Your task to perform on an android device: Open the calculator Image 0: 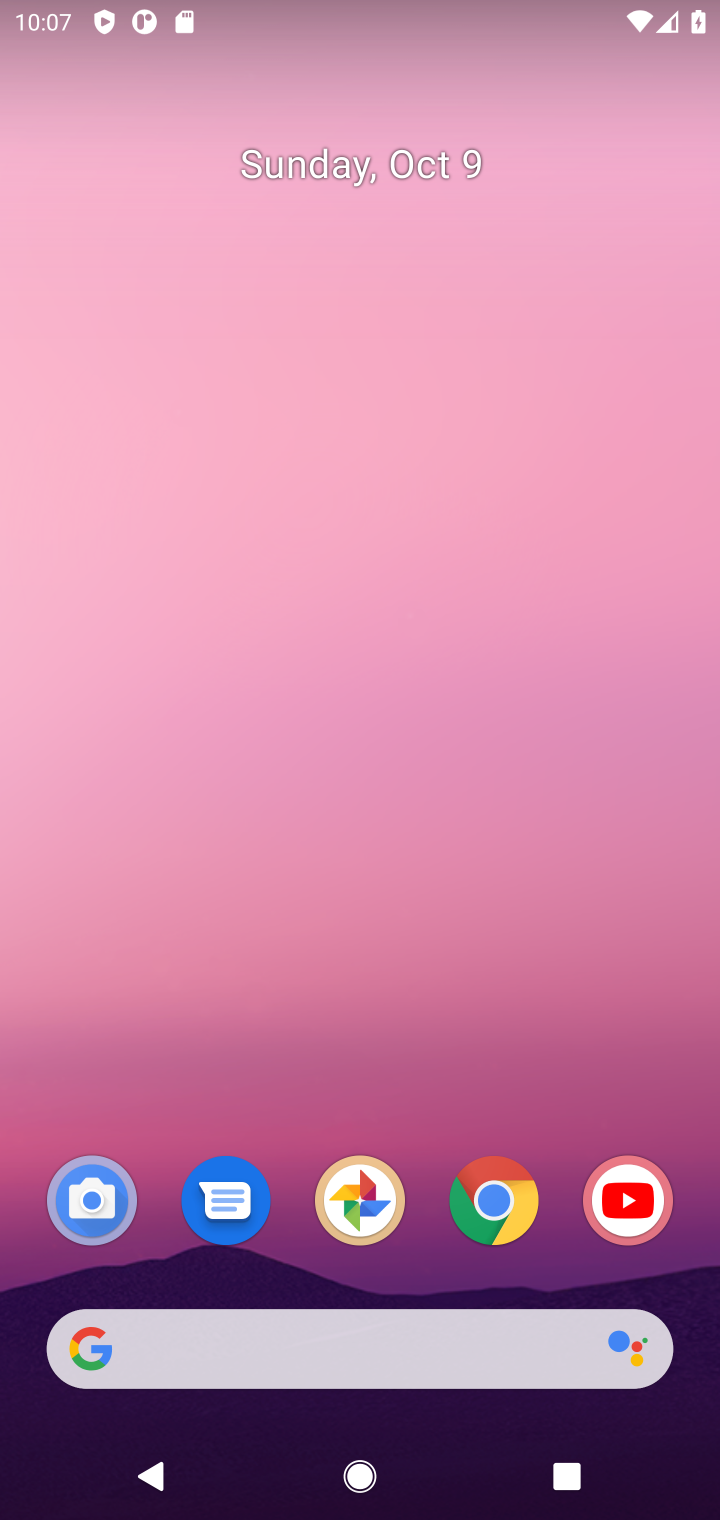
Step 0: drag from (408, 981) to (399, 86)
Your task to perform on an android device: Open the calculator Image 1: 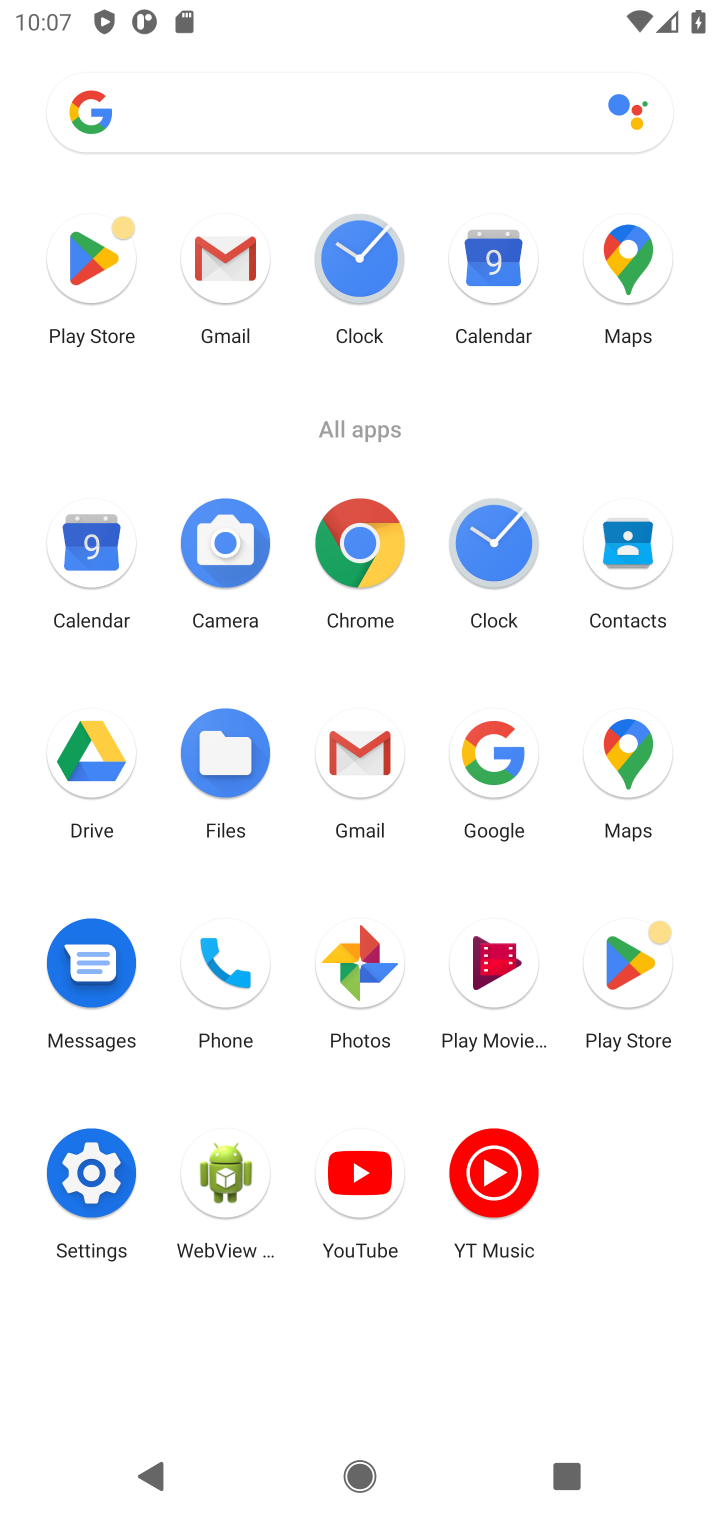
Step 1: task complete